Your task to perform on an android device: turn on the 12-hour format for clock Image 0: 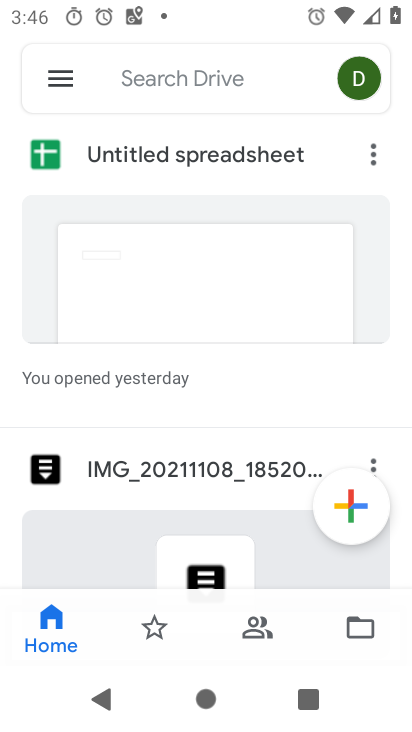
Step 0: press home button
Your task to perform on an android device: turn on the 12-hour format for clock Image 1: 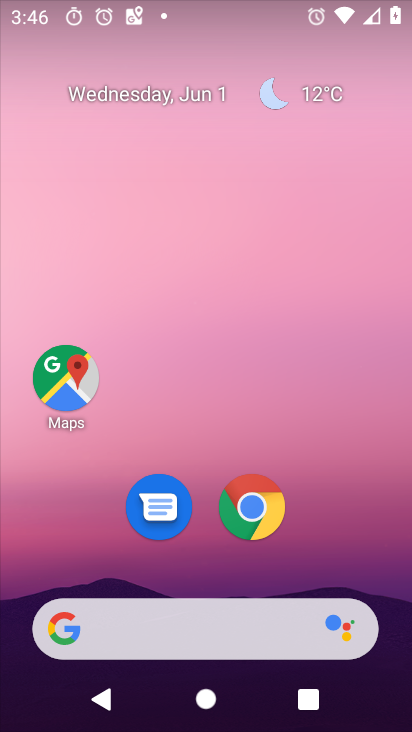
Step 1: drag from (320, 576) to (295, 2)
Your task to perform on an android device: turn on the 12-hour format for clock Image 2: 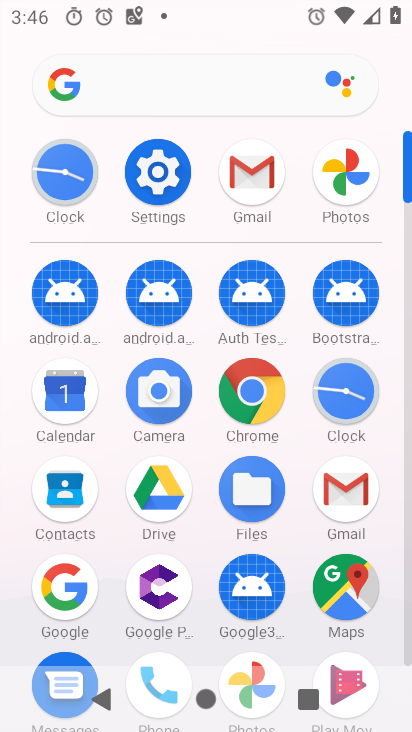
Step 2: click (64, 183)
Your task to perform on an android device: turn on the 12-hour format for clock Image 3: 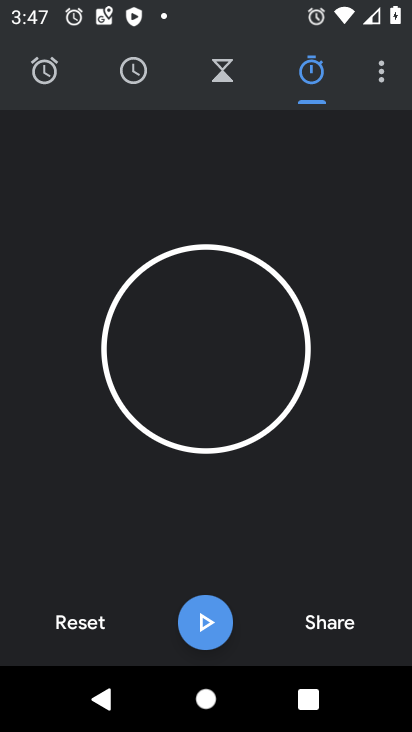
Step 3: click (380, 82)
Your task to perform on an android device: turn on the 12-hour format for clock Image 4: 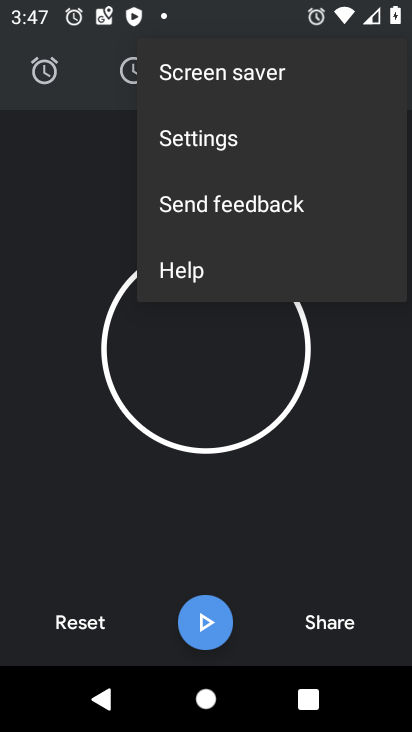
Step 4: click (177, 146)
Your task to perform on an android device: turn on the 12-hour format for clock Image 5: 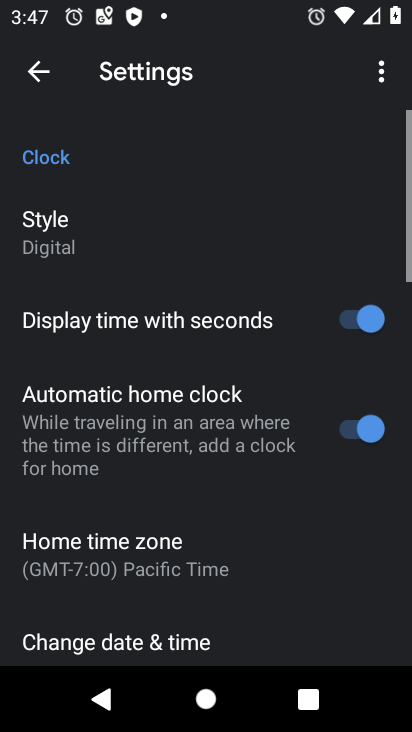
Step 5: drag from (190, 543) to (205, 207)
Your task to perform on an android device: turn on the 12-hour format for clock Image 6: 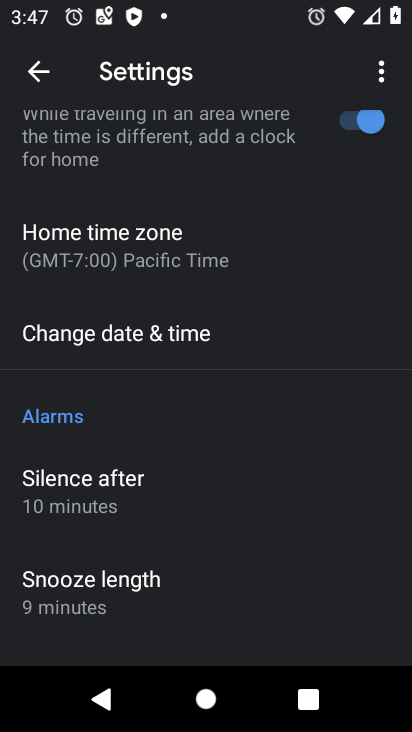
Step 6: click (143, 344)
Your task to perform on an android device: turn on the 12-hour format for clock Image 7: 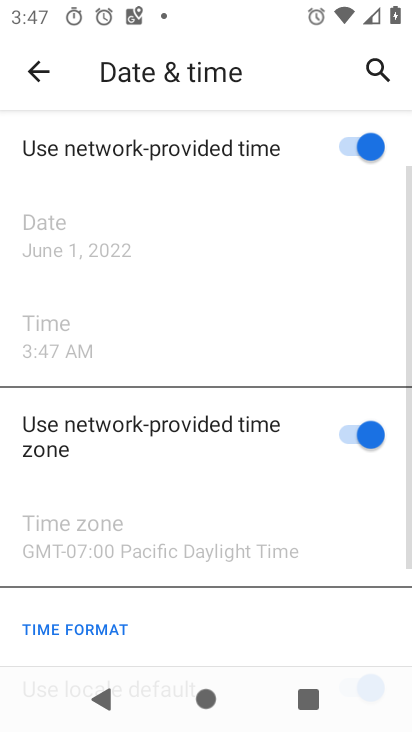
Step 7: task complete